Your task to perform on an android device: Open privacy settings Image 0: 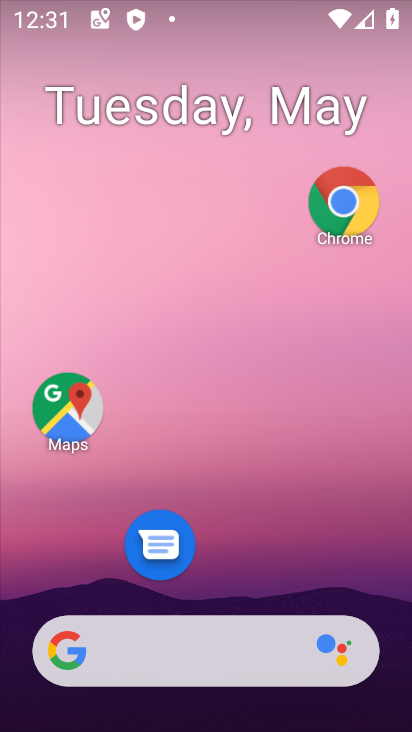
Step 0: drag from (202, 590) to (200, 42)
Your task to perform on an android device: Open privacy settings Image 1: 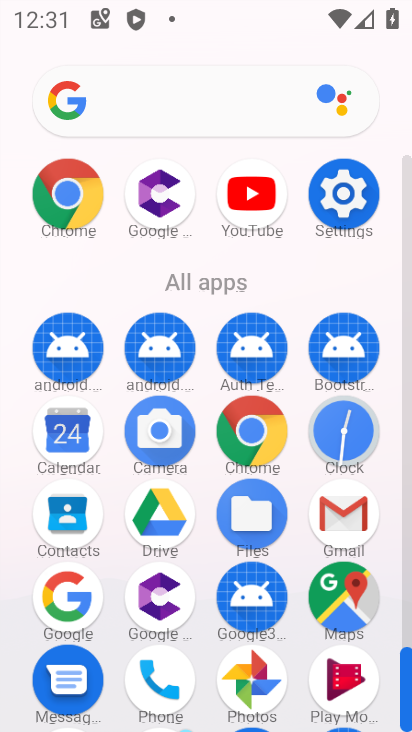
Step 1: click (351, 206)
Your task to perform on an android device: Open privacy settings Image 2: 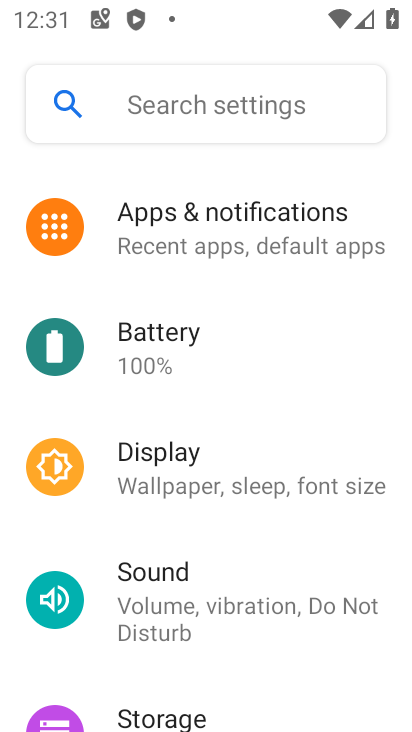
Step 2: drag from (153, 647) to (227, 152)
Your task to perform on an android device: Open privacy settings Image 3: 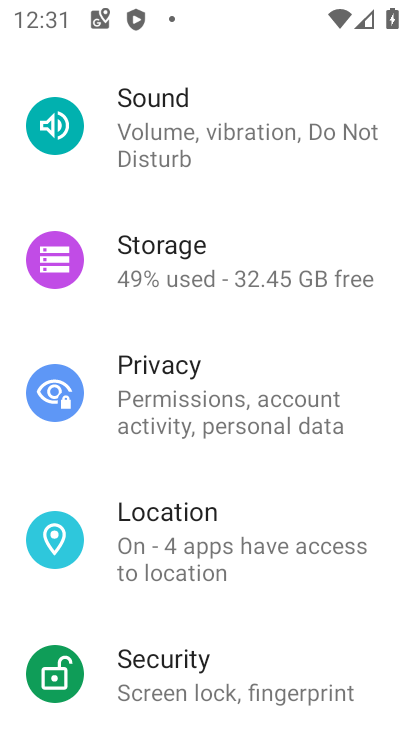
Step 3: click (124, 404)
Your task to perform on an android device: Open privacy settings Image 4: 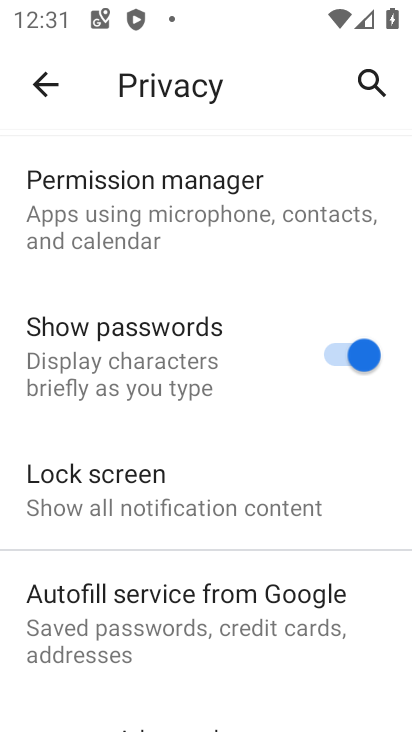
Step 4: task complete